Your task to perform on an android device: make emails show in primary in the gmail app Image 0: 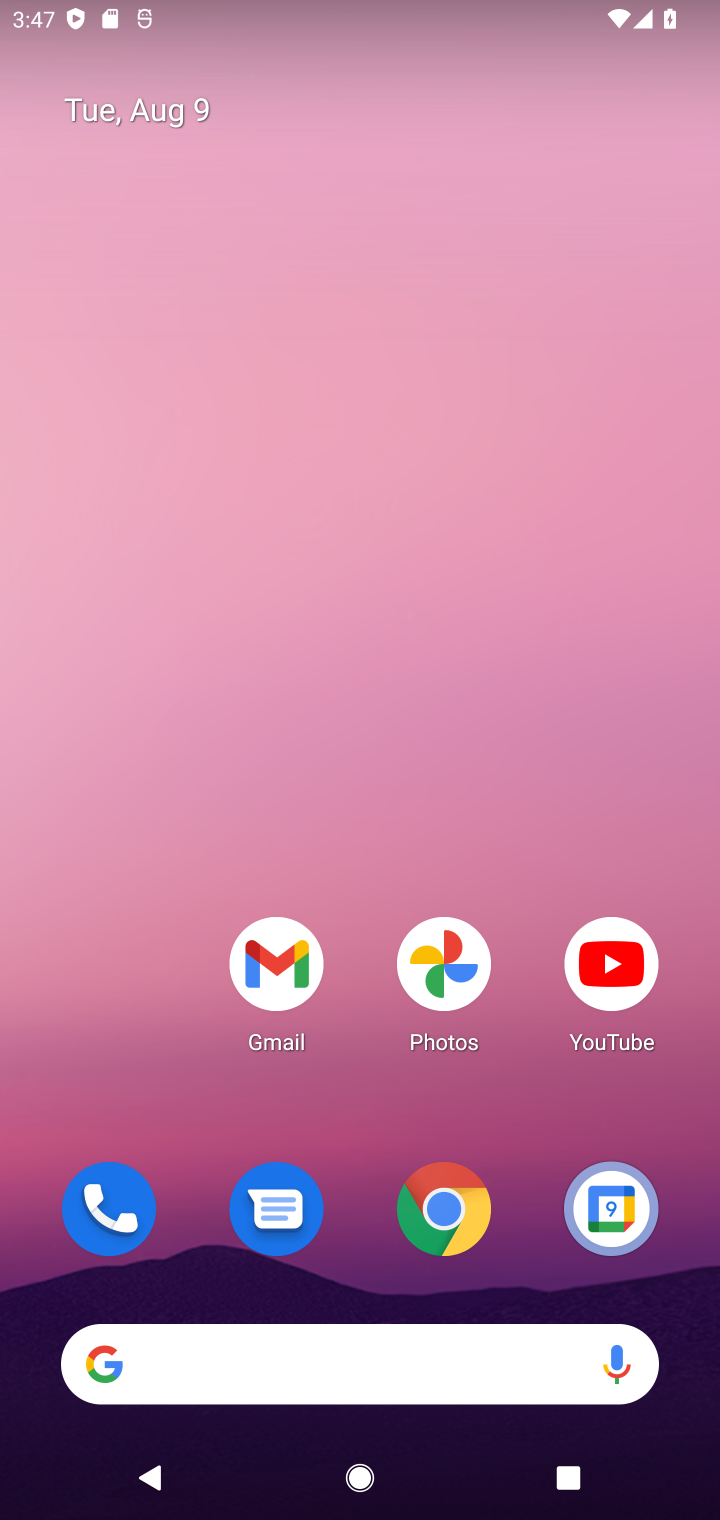
Step 0: press home button
Your task to perform on an android device: make emails show in primary in the gmail app Image 1: 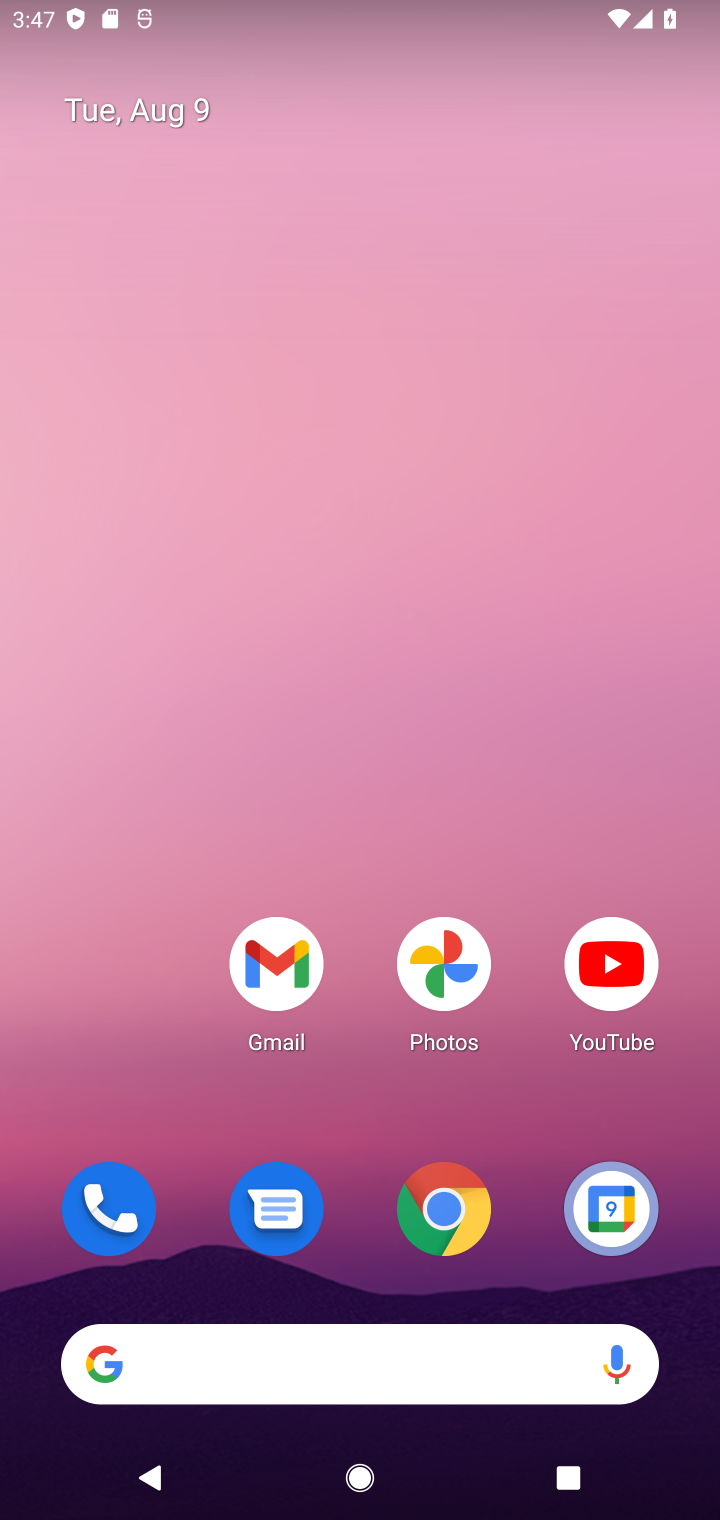
Step 1: click (275, 972)
Your task to perform on an android device: make emails show in primary in the gmail app Image 2: 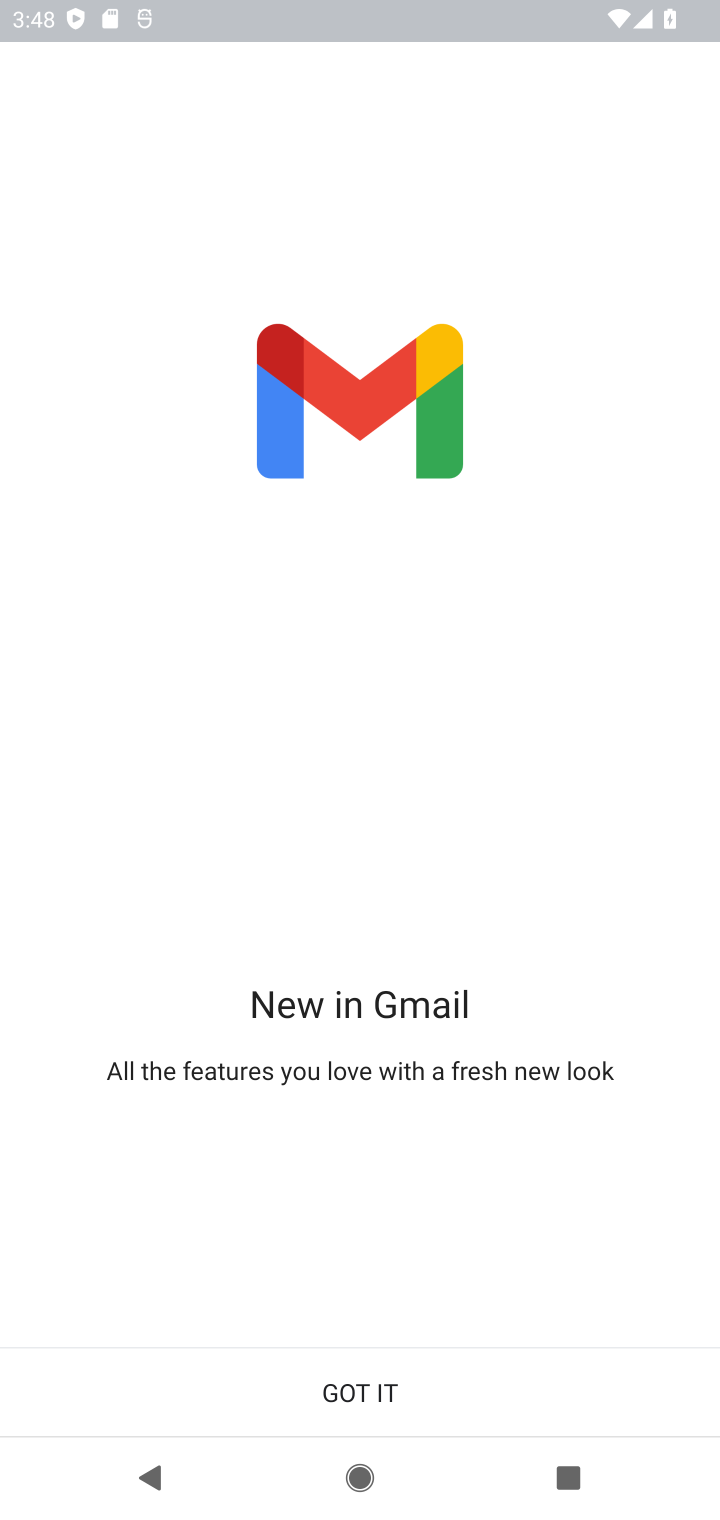
Step 2: click (358, 1398)
Your task to perform on an android device: make emails show in primary in the gmail app Image 3: 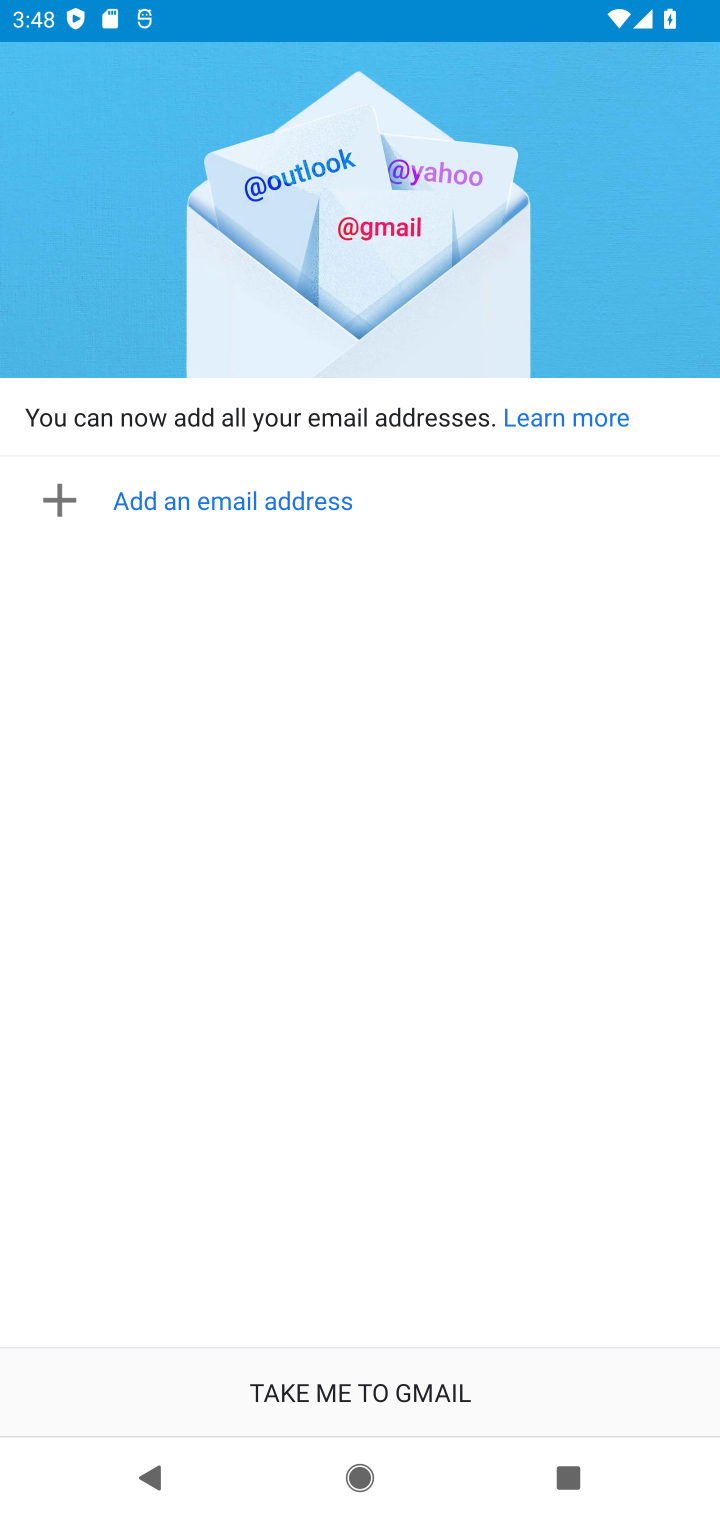
Step 3: click (279, 1395)
Your task to perform on an android device: make emails show in primary in the gmail app Image 4: 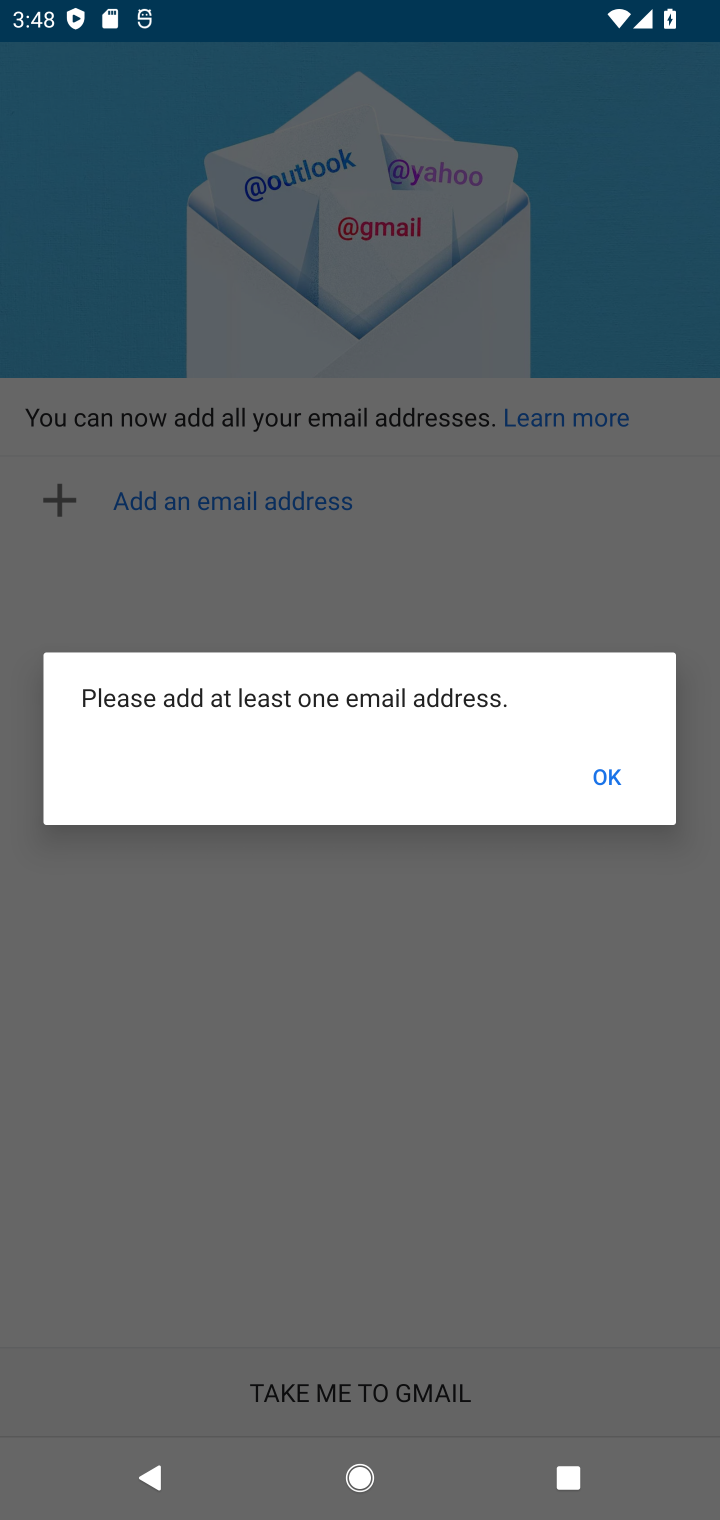
Step 4: task complete